Your task to perform on an android device: turn on location history Image 0: 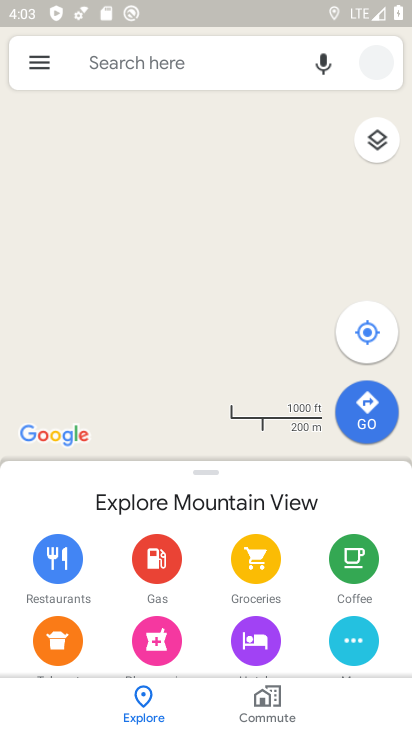
Step 0: click (97, 173)
Your task to perform on an android device: turn on location history Image 1: 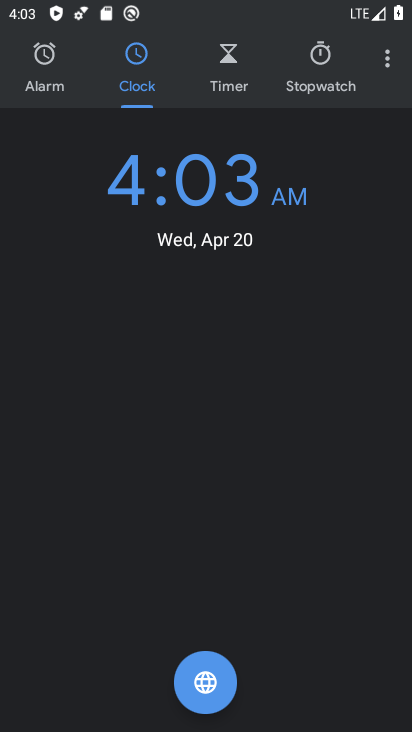
Step 1: press home button
Your task to perform on an android device: turn on location history Image 2: 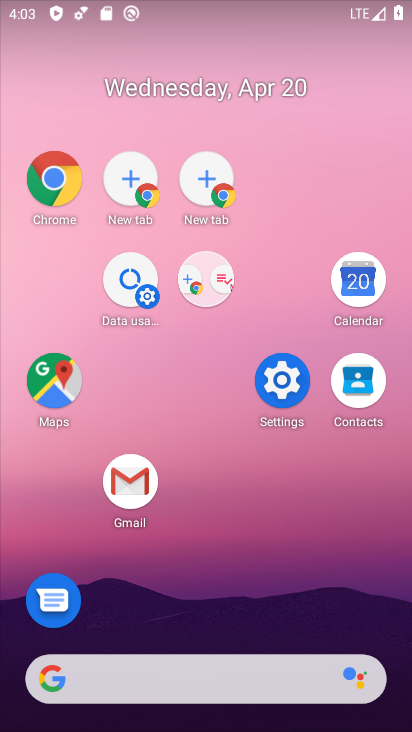
Step 2: click (36, 390)
Your task to perform on an android device: turn on location history Image 3: 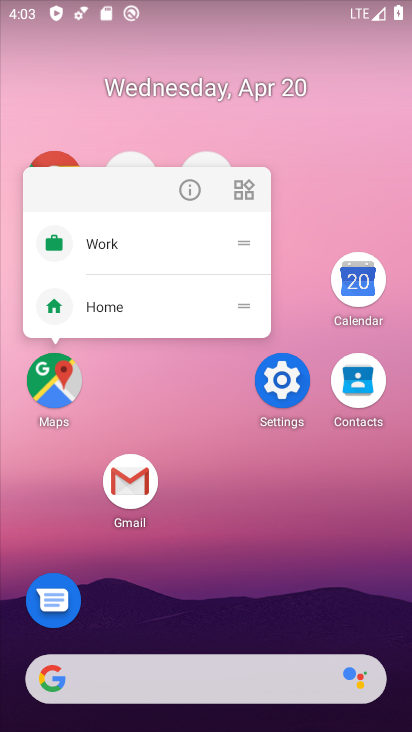
Step 3: click (45, 395)
Your task to perform on an android device: turn on location history Image 4: 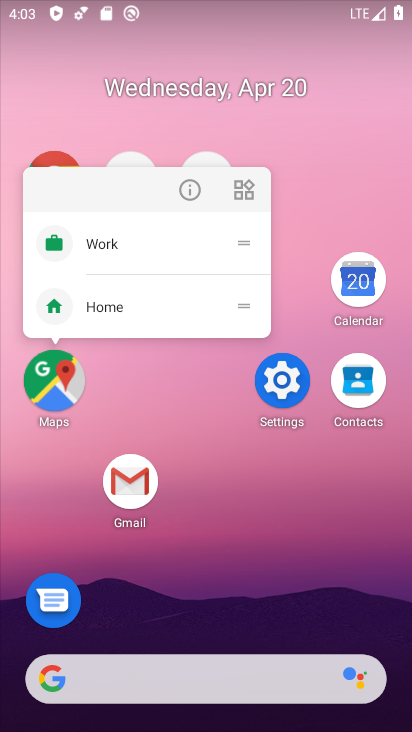
Step 4: drag from (45, 395) to (61, 362)
Your task to perform on an android device: turn on location history Image 5: 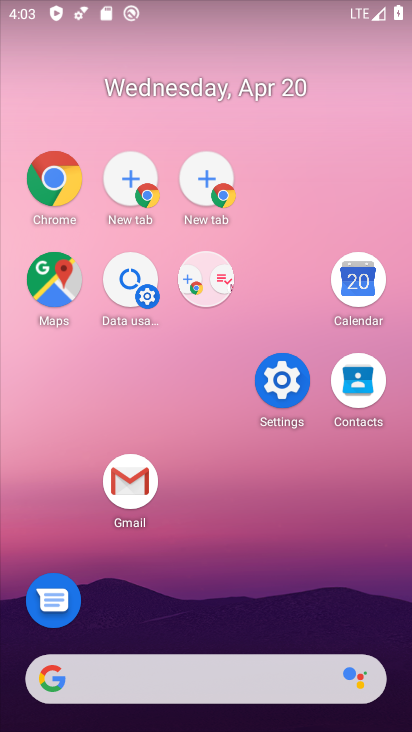
Step 5: click (73, 273)
Your task to perform on an android device: turn on location history Image 6: 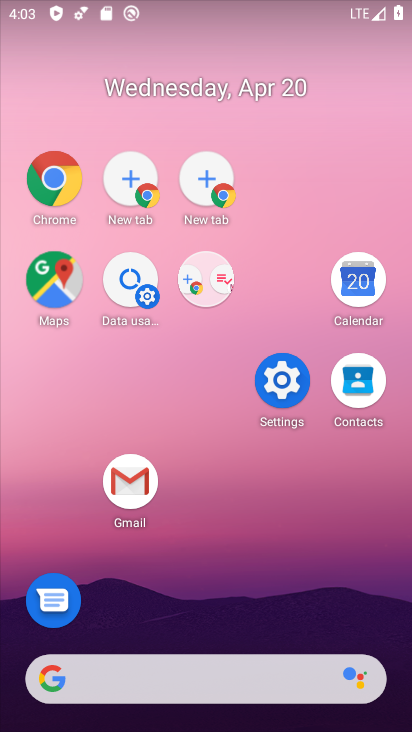
Step 6: click (73, 273)
Your task to perform on an android device: turn on location history Image 7: 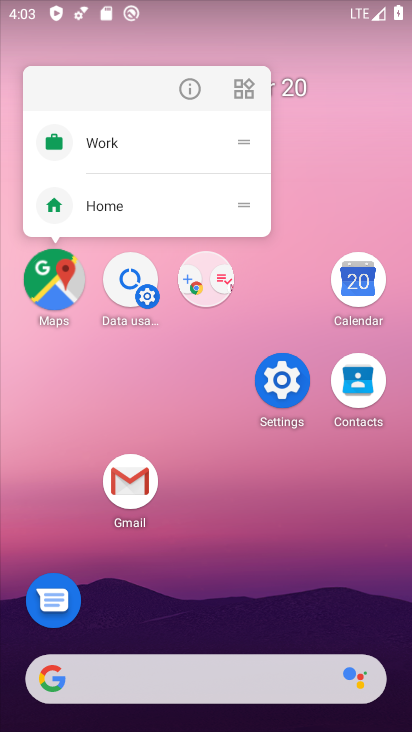
Step 7: click (73, 273)
Your task to perform on an android device: turn on location history Image 8: 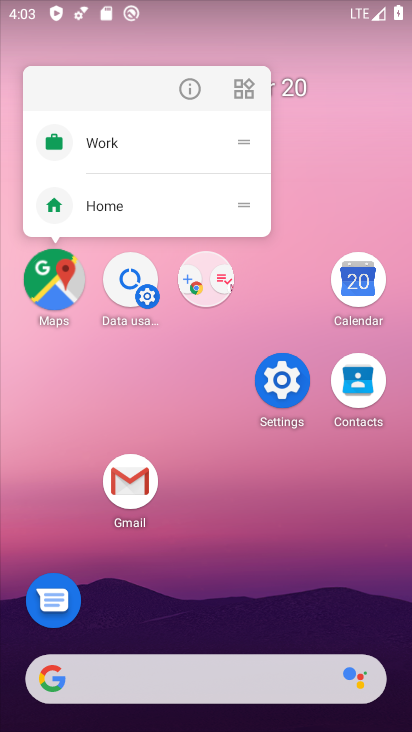
Step 8: click (56, 268)
Your task to perform on an android device: turn on location history Image 9: 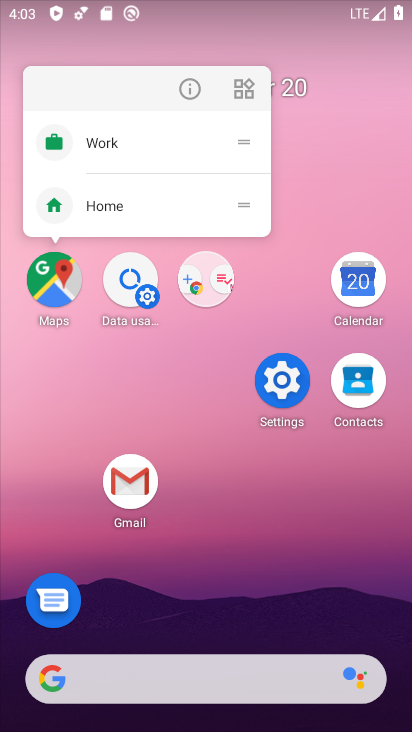
Step 9: click (43, 290)
Your task to perform on an android device: turn on location history Image 10: 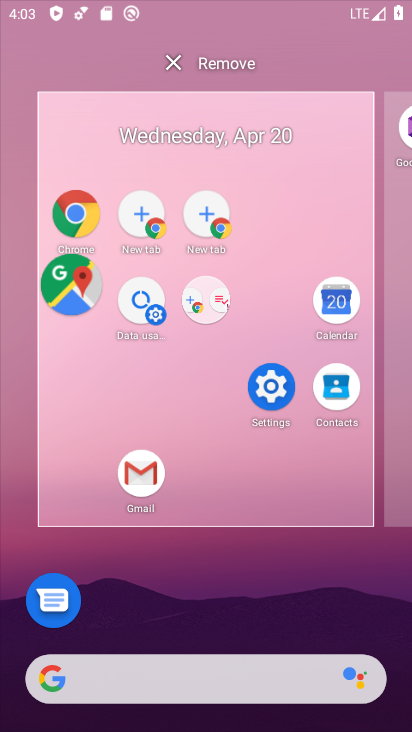
Step 10: click (64, 293)
Your task to perform on an android device: turn on location history Image 11: 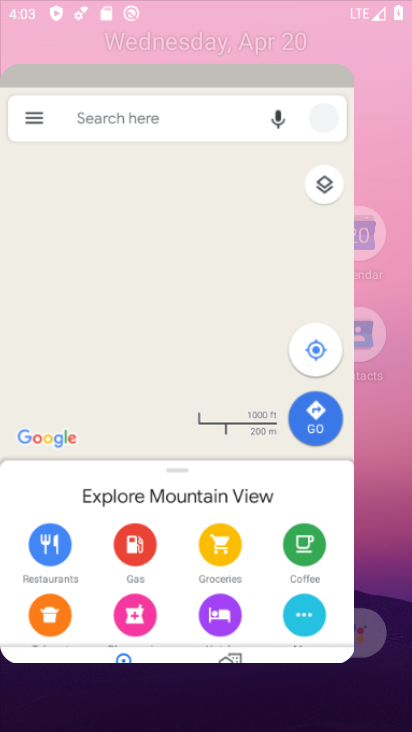
Step 11: click (81, 280)
Your task to perform on an android device: turn on location history Image 12: 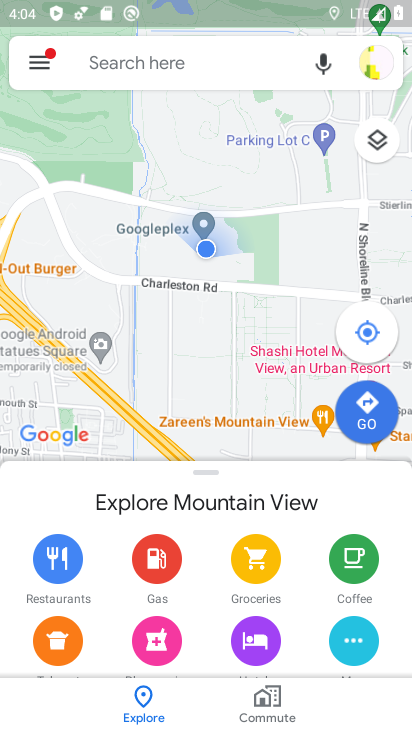
Step 12: click (34, 64)
Your task to perform on an android device: turn on location history Image 13: 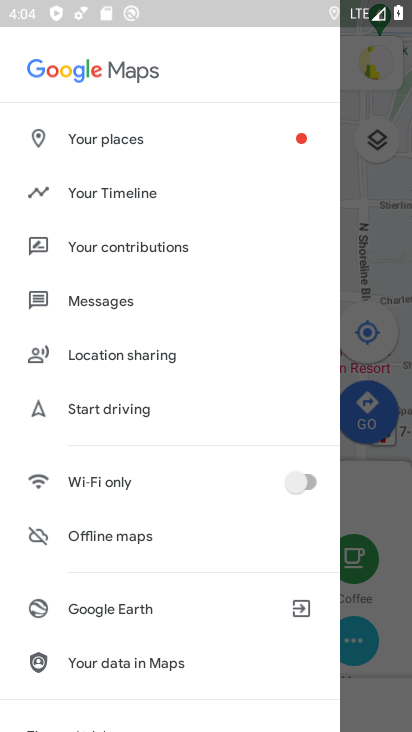
Step 13: click (106, 194)
Your task to perform on an android device: turn on location history Image 14: 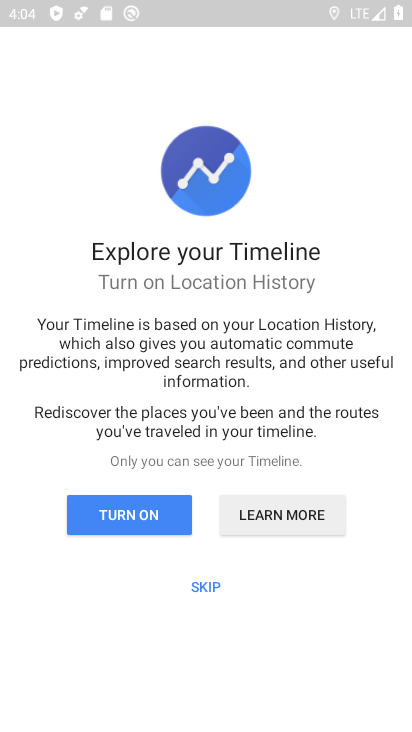
Step 14: click (117, 519)
Your task to perform on an android device: turn on location history Image 15: 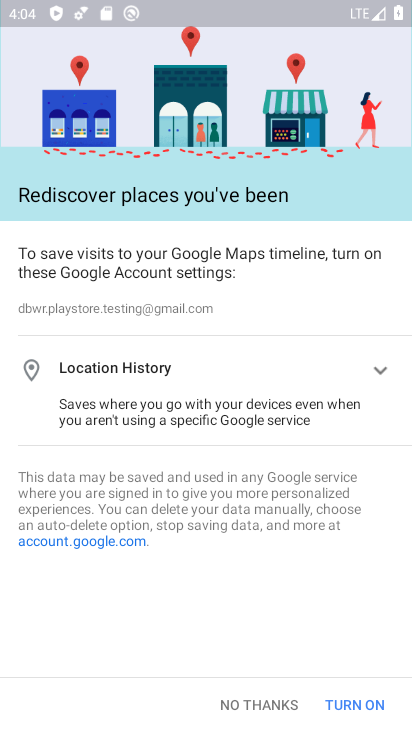
Step 15: click (354, 707)
Your task to perform on an android device: turn on location history Image 16: 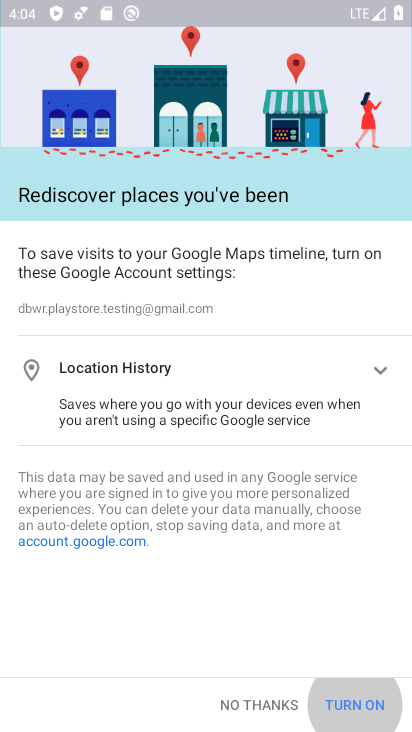
Step 16: click (354, 707)
Your task to perform on an android device: turn on location history Image 17: 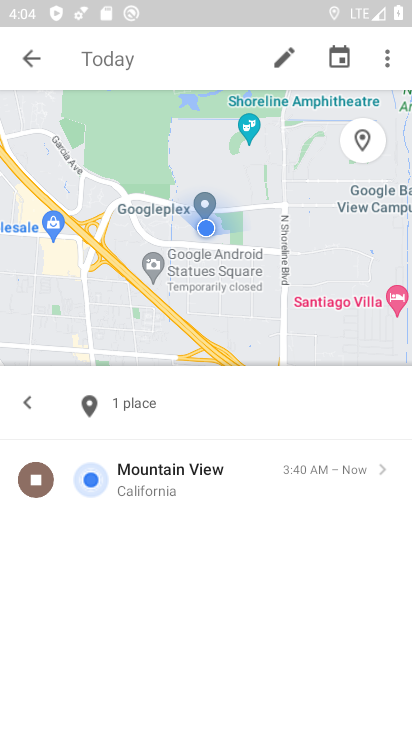
Step 17: task complete